Your task to perform on an android device: Open calendar and show me the first week of next month Image 0: 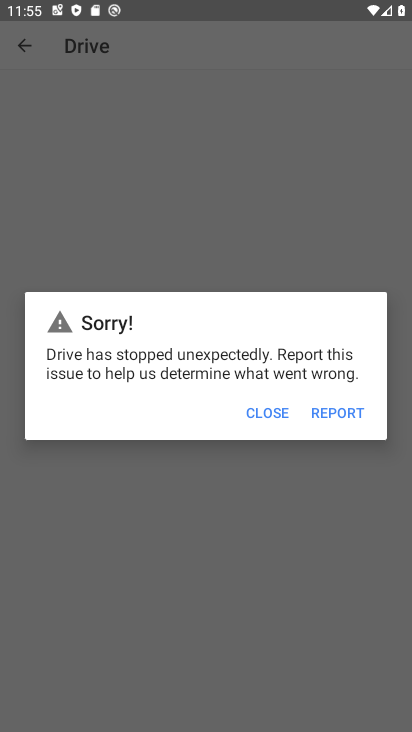
Step 0: press home button
Your task to perform on an android device: Open calendar and show me the first week of next month Image 1: 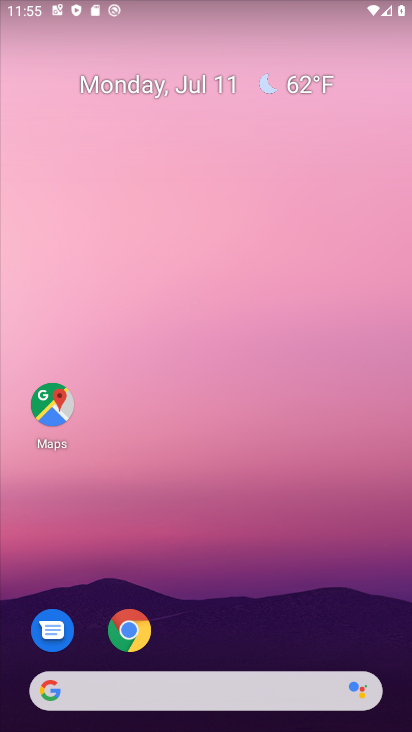
Step 1: drag from (259, 696) to (310, 17)
Your task to perform on an android device: Open calendar and show me the first week of next month Image 2: 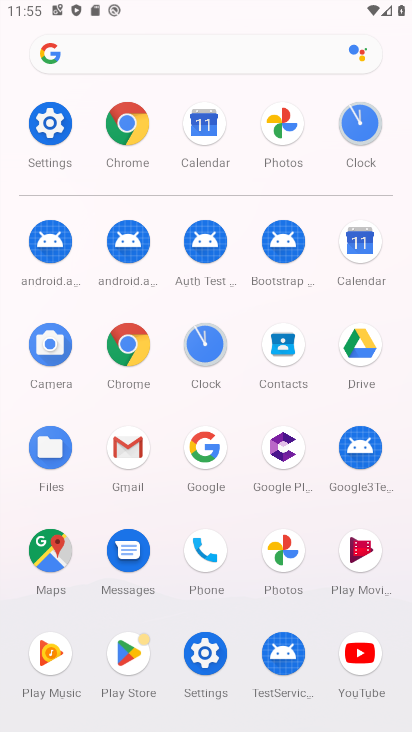
Step 2: click (373, 240)
Your task to perform on an android device: Open calendar and show me the first week of next month Image 3: 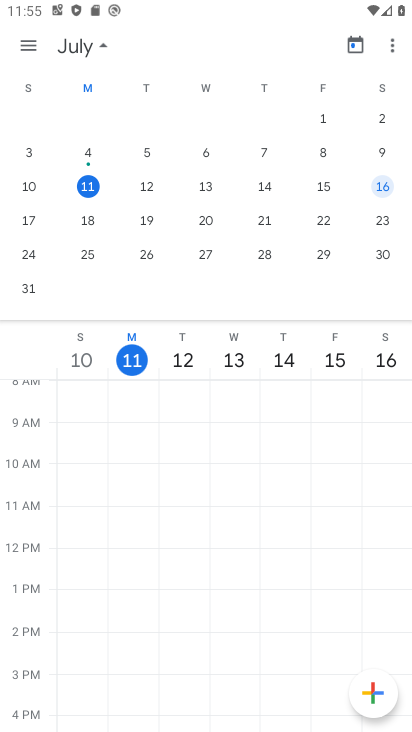
Step 3: drag from (362, 247) to (90, 245)
Your task to perform on an android device: Open calendar and show me the first week of next month Image 4: 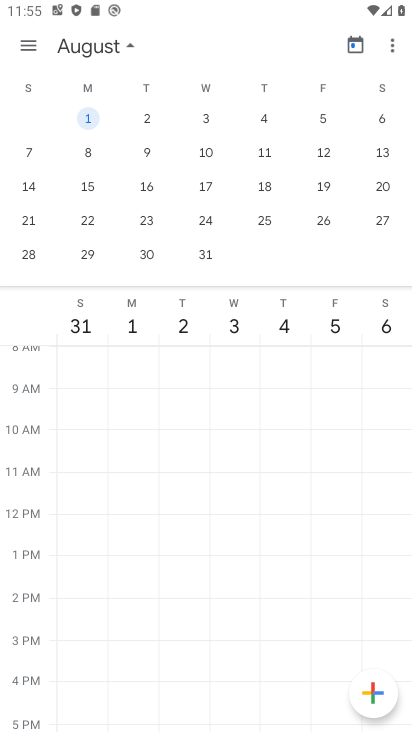
Step 4: click (269, 117)
Your task to perform on an android device: Open calendar and show me the first week of next month Image 5: 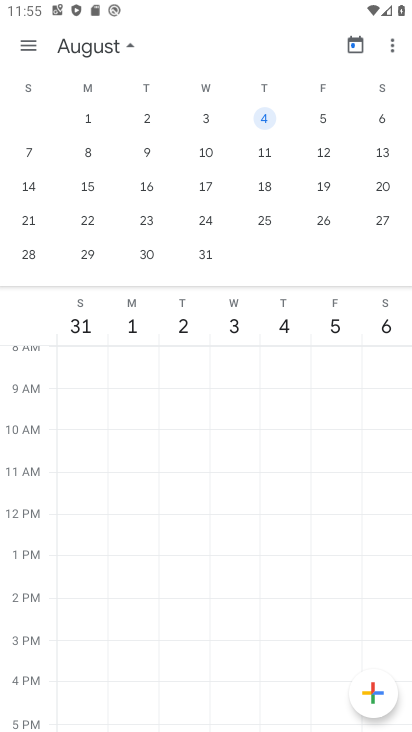
Step 5: task complete